Your task to perform on an android device: read, delete, or share a saved page in the chrome app Image 0: 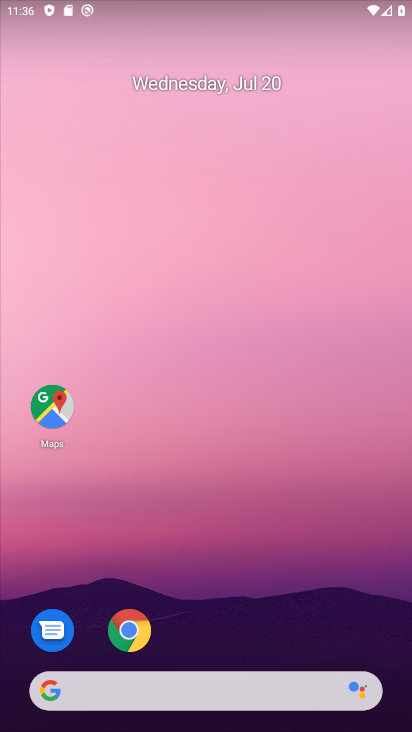
Step 0: drag from (185, 652) to (185, 280)
Your task to perform on an android device: read, delete, or share a saved page in the chrome app Image 1: 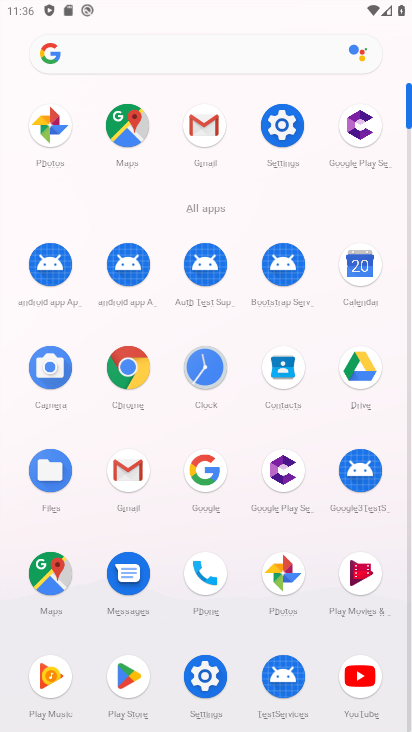
Step 1: click (124, 373)
Your task to perform on an android device: read, delete, or share a saved page in the chrome app Image 2: 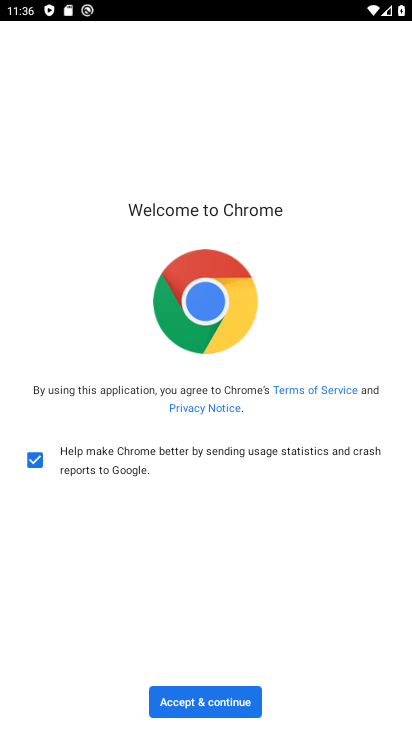
Step 2: click (174, 717)
Your task to perform on an android device: read, delete, or share a saved page in the chrome app Image 3: 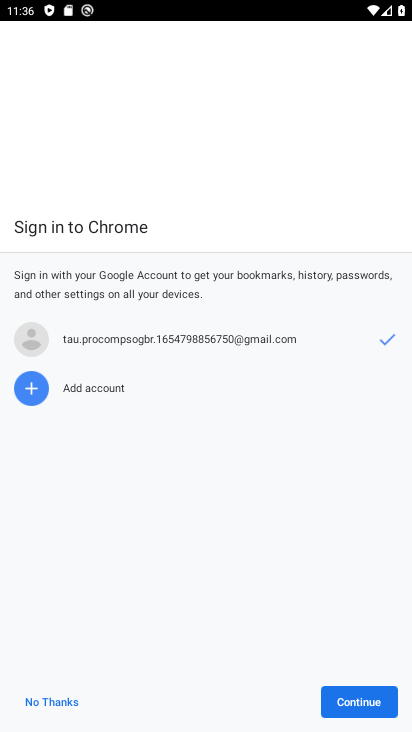
Step 3: click (368, 705)
Your task to perform on an android device: read, delete, or share a saved page in the chrome app Image 4: 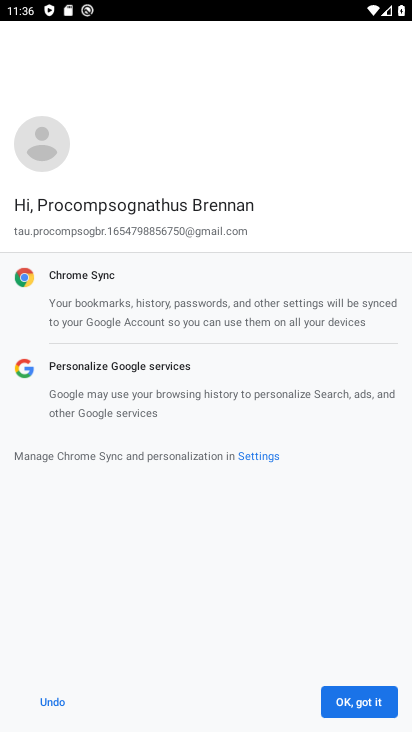
Step 4: click (370, 707)
Your task to perform on an android device: read, delete, or share a saved page in the chrome app Image 5: 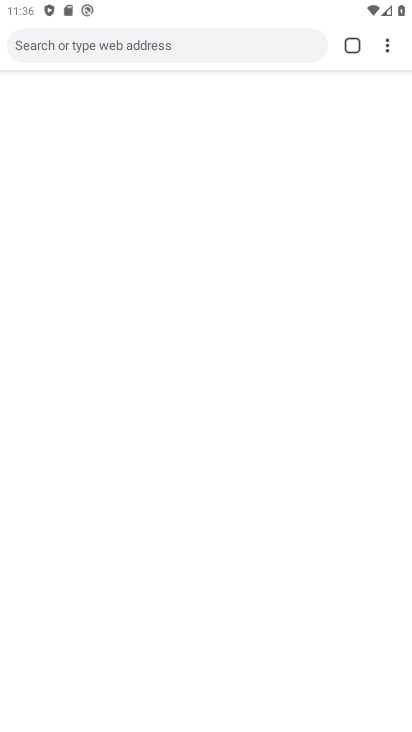
Step 5: drag from (295, 619) to (296, 340)
Your task to perform on an android device: read, delete, or share a saved page in the chrome app Image 6: 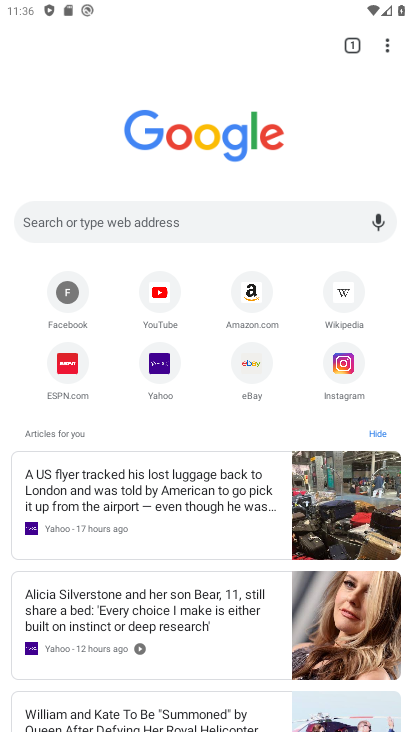
Step 6: drag from (223, 554) to (212, 289)
Your task to perform on an android device: read, delete, or share a saved page in the chrome app Image 7: 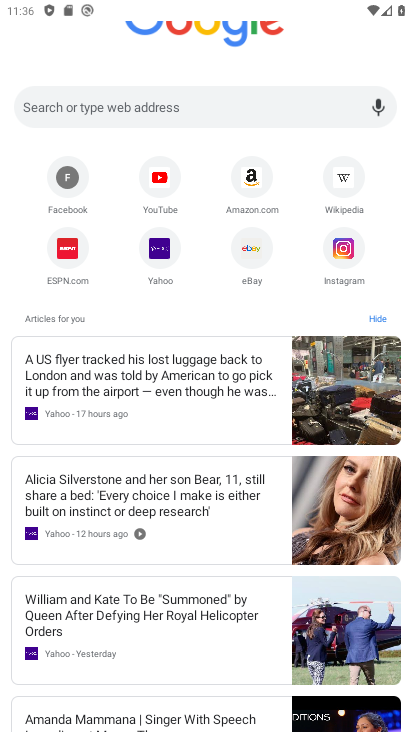
Step 7: drag from (270, 596) to (289, 322)
Your task to perform on an android device: read, delete, or share a saved page in the chrome app Image 8: 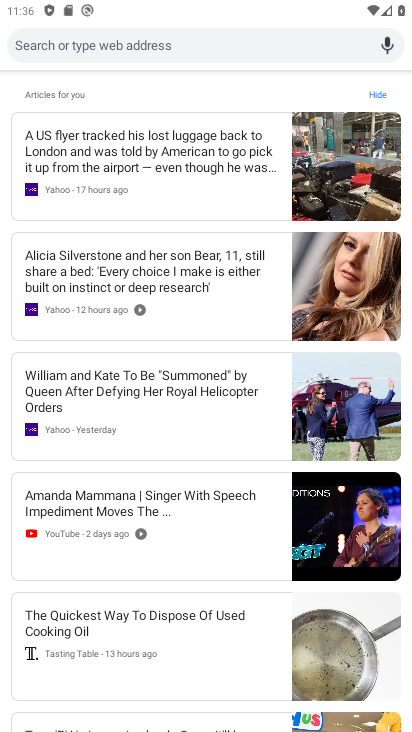
Step 8: drag from (236, 170) to (410, 372)
Your task to perform on an android device: read, delete, or share a saved page in the chrome app Image 9: 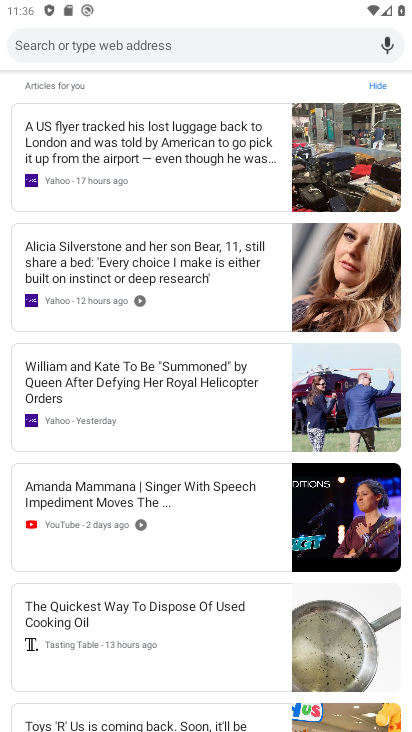
Step 9: drag from (339, 93) to (407, 290)
Your task to perform on an android device: read, delete, or share a saved page in the chrome app Image 10: 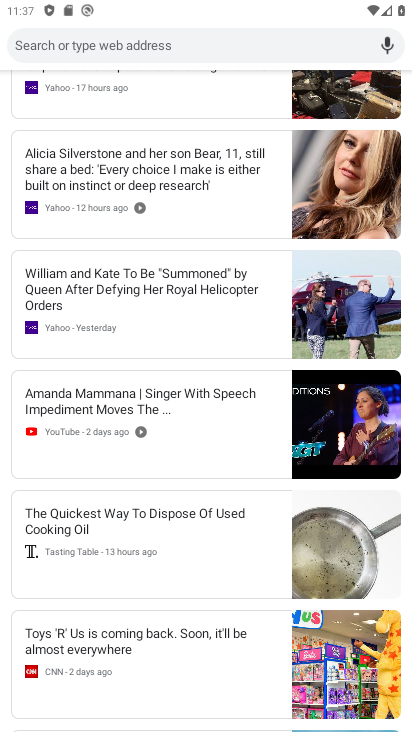
Step 10: drag from (272, 101) to (231, 583)
Your task to perform on an android device: read, delete, or share a saved page in the chrome app Image 11: 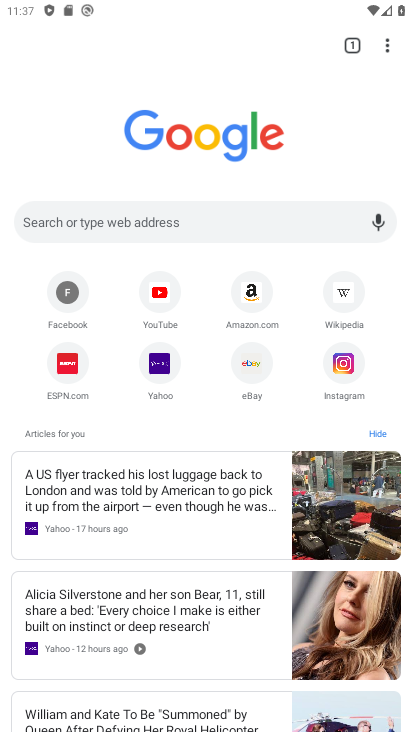
Step 11: drag from (385, 44) to (257, 216)
Your task to perform on an android device: read, delete, or share a saved page in the chrome app Image 12: 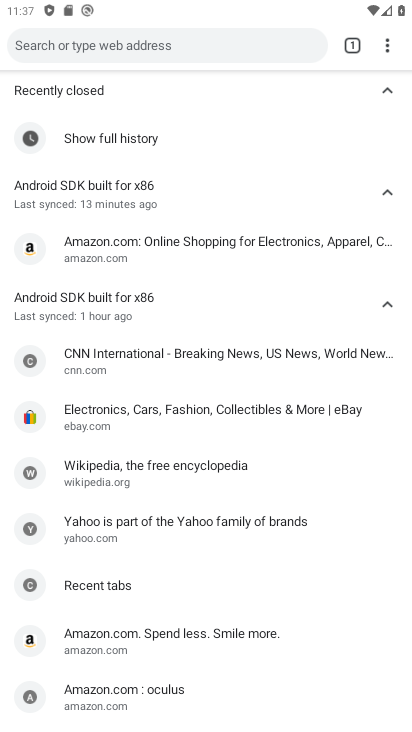
Step 12: drag from (386, 34) to (272, 179)
Your task to perform on an android device: read, delete, or share a saved page in the chrome app Image 13: 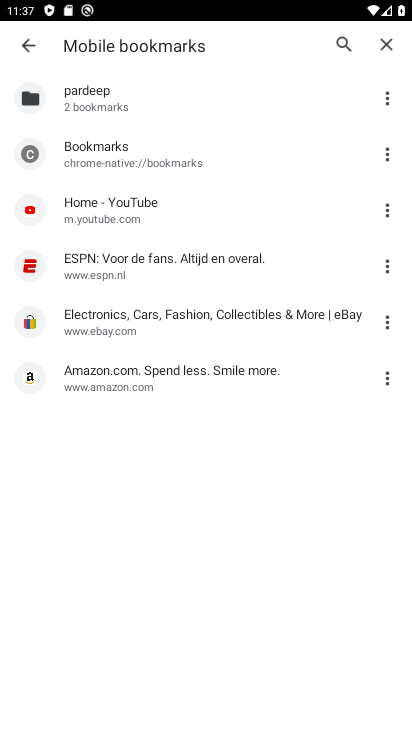
Step 13: click (105, 217)
Your task to perform on an android device: read, delete, or share a saved page in the chrome app Image 14: 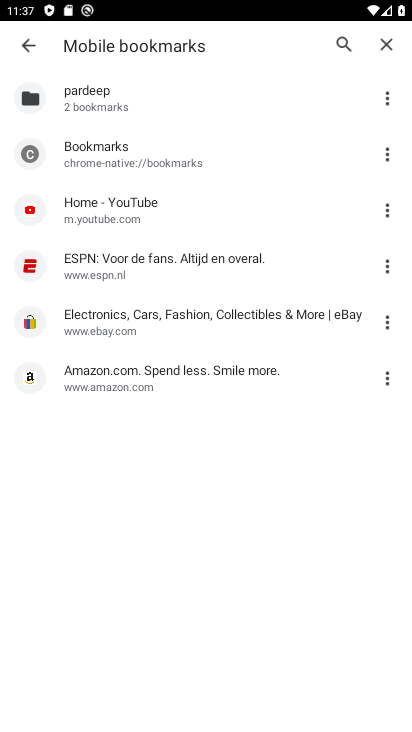
Step 14: task complete